Your task to perform on an android device: turn on the 12-hour format for clock Image 0: 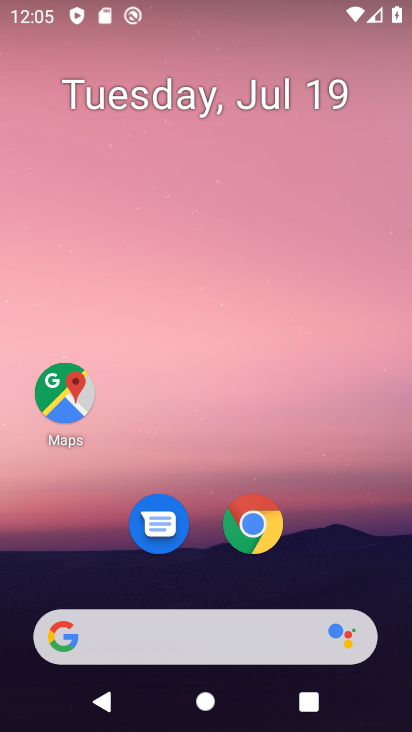
Step 0: press home button
Your task to perform on an android device: turn on the 12-hour format for clock Image 1: 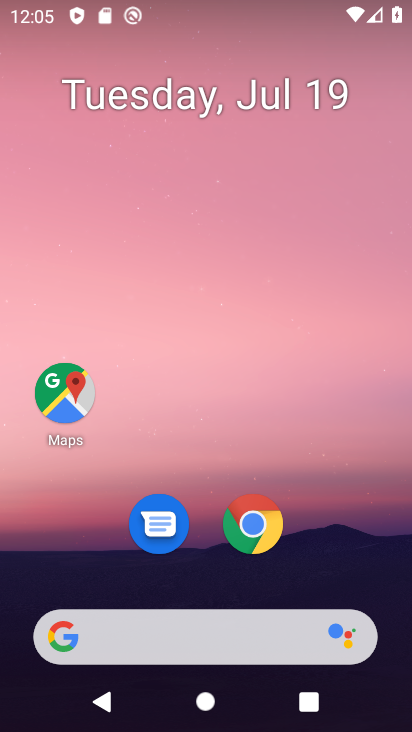
Step 1: drag from (203, 580) to (309, 39)
Your task to perform on an android device: turn on the 12-hour format for clock Image 2: 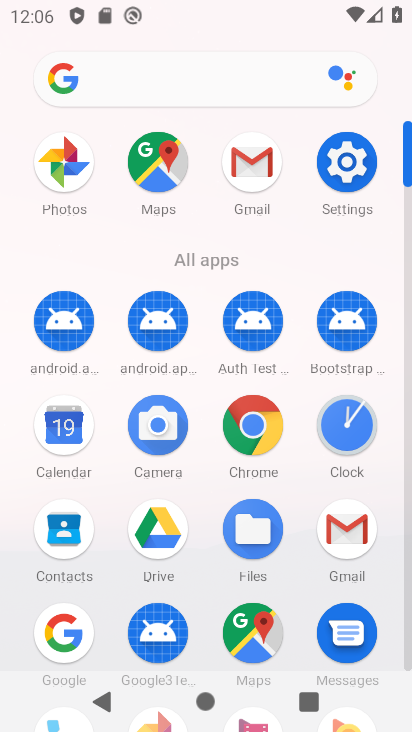
Step 2: click (345, 436)
Your task to perform on an android device: turn on the 12-hour format for clock Image 3: 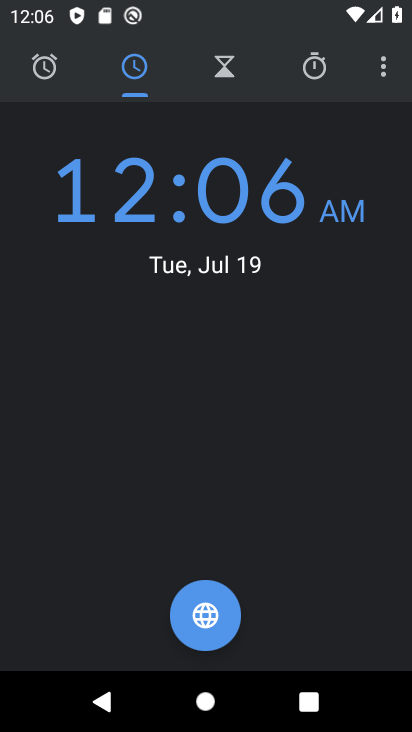
Step 3: click (382, 70)
Your task to perform on an android device: turn on the 12-hour format for clock Image 4: 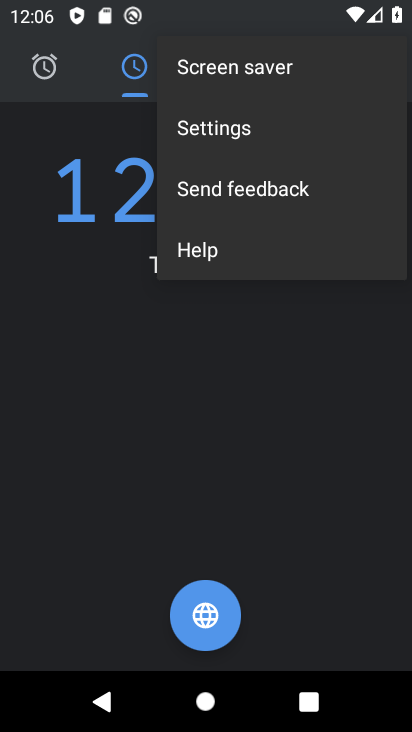
Step 4: click (236, 134)
Your task to perform on an android device: turn on the 12-hour format for clock Image 5: 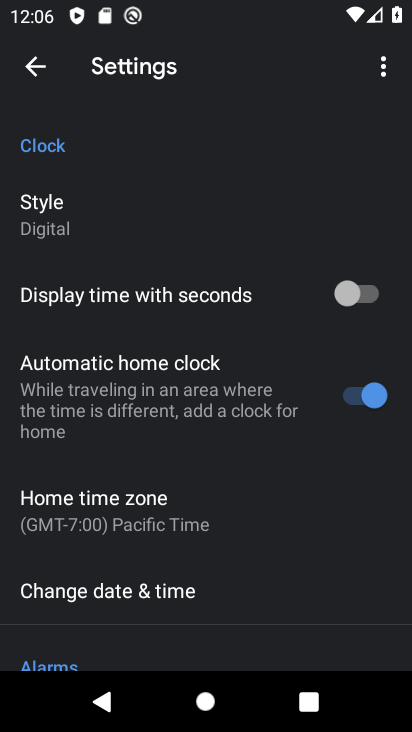
Step 5: drag from (211, 555) to (276, 53)
Your task to perform on an android device: turn on the 12-hour format for clock Image 6: 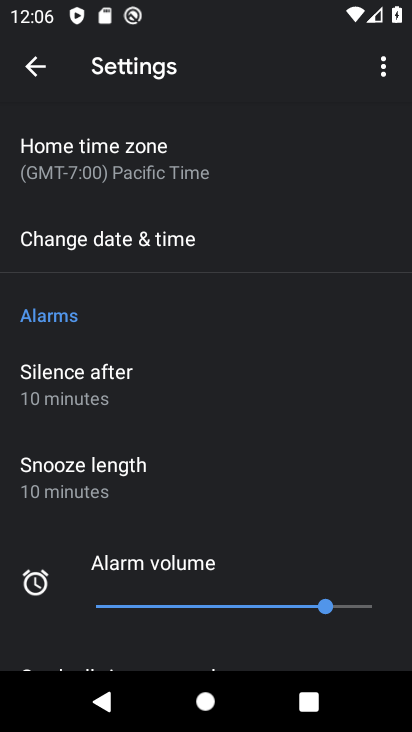
Step 6: click (156, 245)
Your task to perform on an android device: turn on the 12-hour format for clock Image 7: 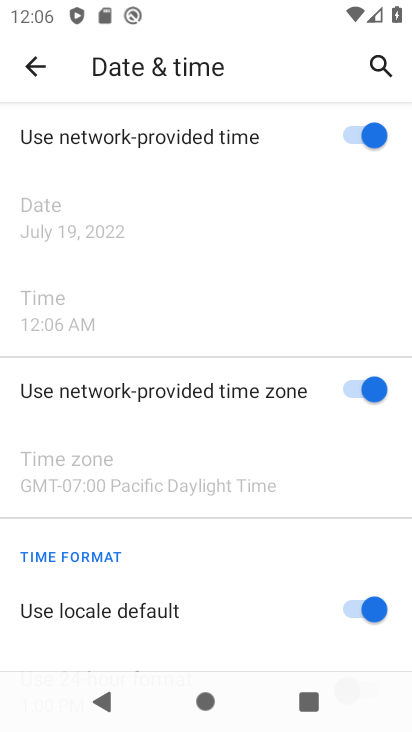
Step 7: task complete